Your task to perform on an android device: Open wifi settings Image 0: 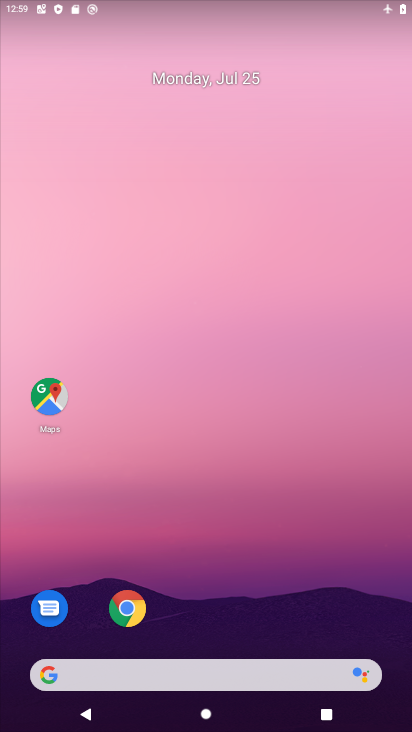
Step 0: drag from (209, 646) to (233, 1)
Your task to perform on an android device: Open wifi settings Image 1: 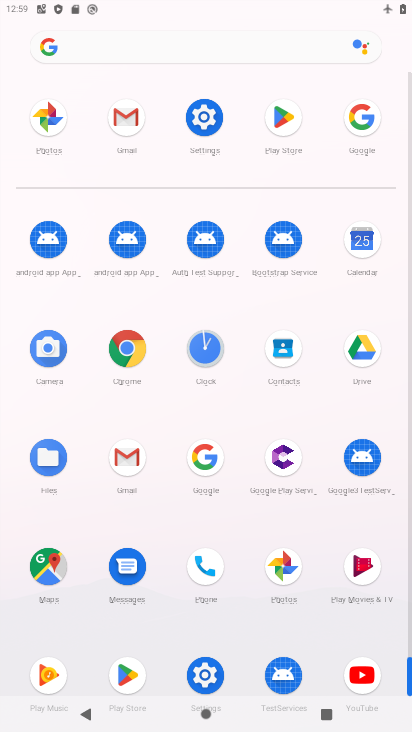
Step 1: click (208, 106)
Your task to perform on an android device: Open wifi settings Image 2: 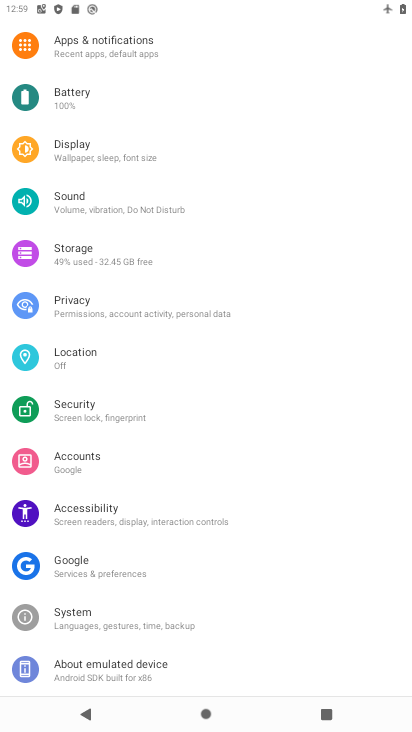
Step 2: drag from (281, 112) to (270, 369)
Your task to perform on an android device: Open wifi settings Image 3: 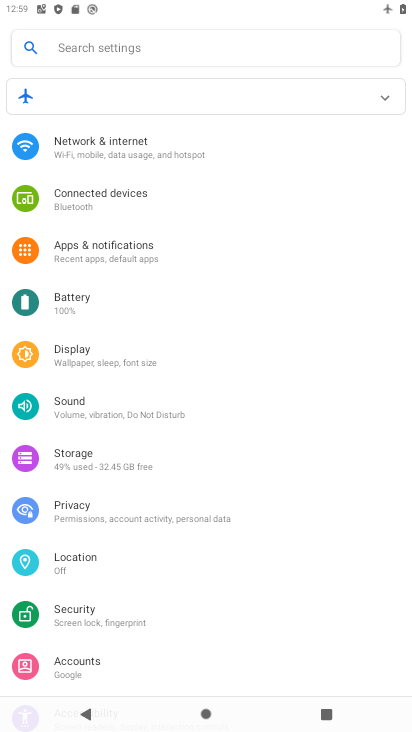
Step 3: click (104, 151)
Your task to perform on an android device: Open wifi settings Image 4: 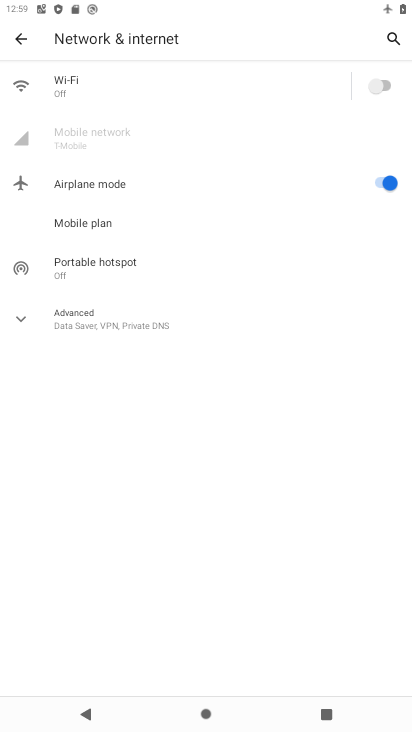
Step 4: click (66, 89)
Your task to perform on an android device: Open wifi settings Image 5: 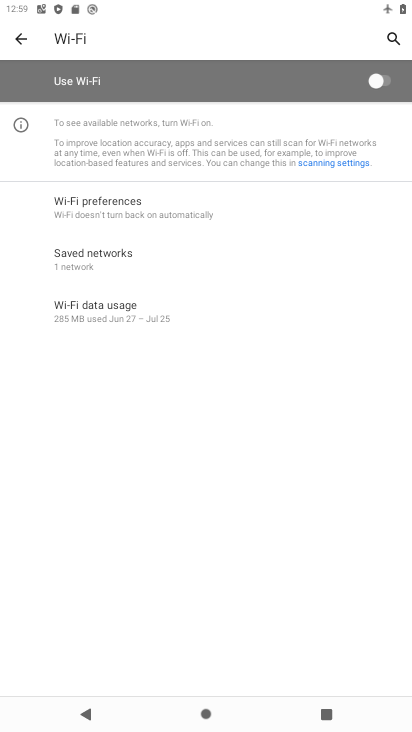
Step 5: task complete